Your task to perform on an android device: open a bookmark in the chrome app Image 0: 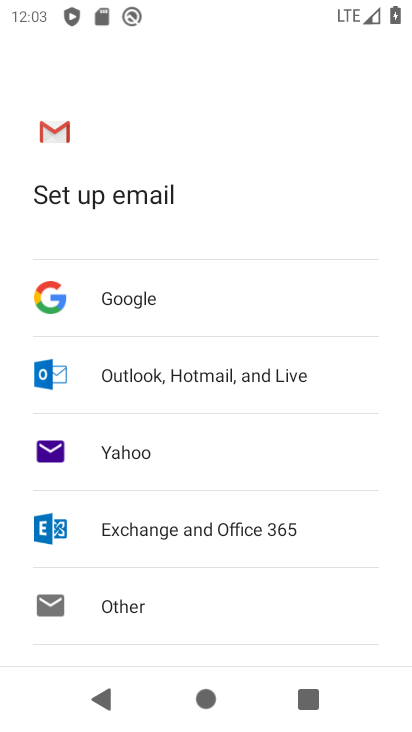
Step 0: press home button
Your task to perform on an android device: open a bookmark in the chrome app Image 1: 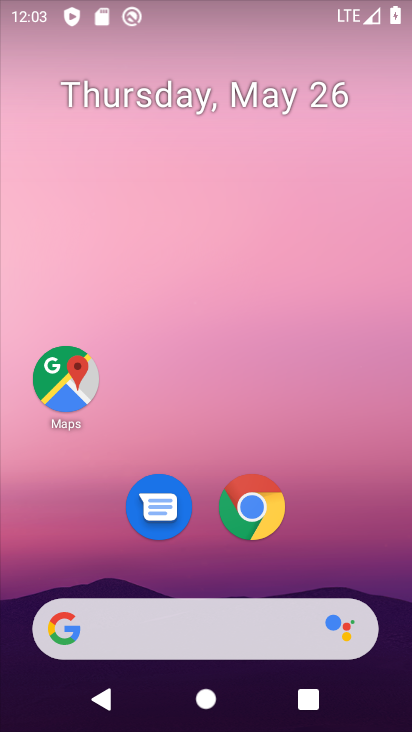
Step 1: click (251, 517)
Your task to perform on an android device: open a bookmark in the chrome app Image 2: 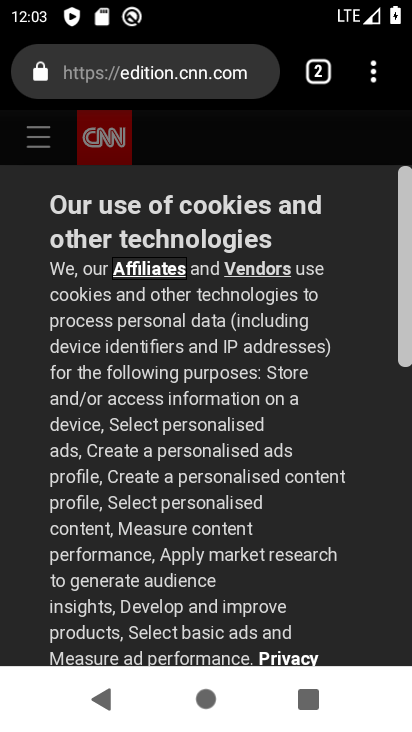
Step 2: click (368, 82)
Your task to perform on an android device: open a bookmark in the chrome app Image 3: 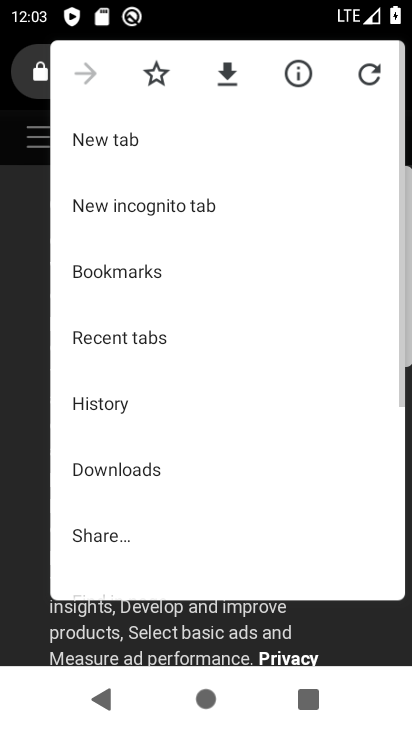
Step 3: click (133, 281)
Your task to perform on an android device: open a bookmark in the chrome app Image 4: 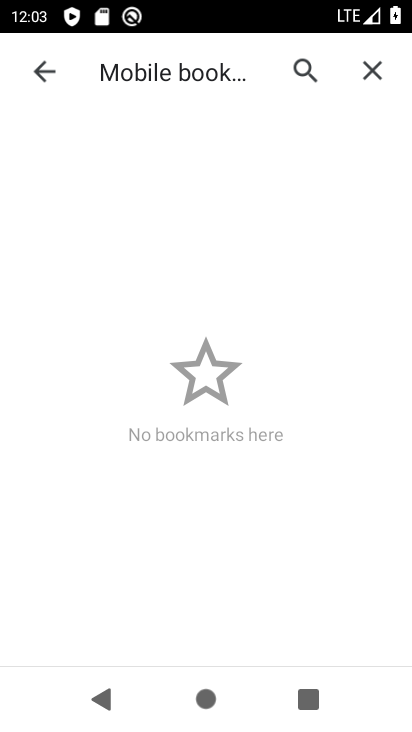
Step 4: task complete